Your task to perform on an android device: turn on the 24-hour format for clock Image 0: 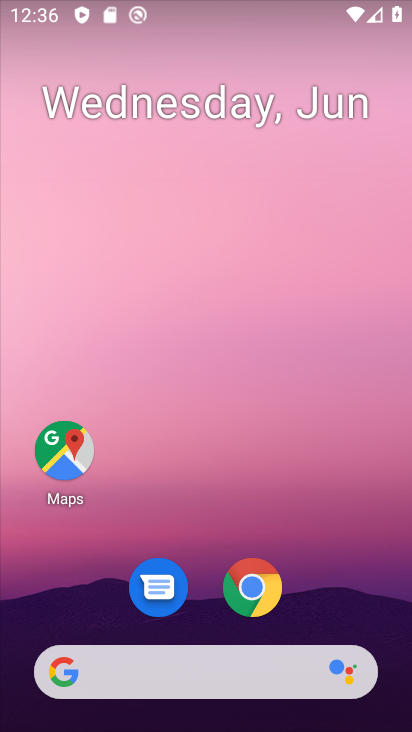
Step 0: drag from (340, 532) to (311, 123)
Your task to perform on an android device: turn on the 24-hour format for clock Image 1: 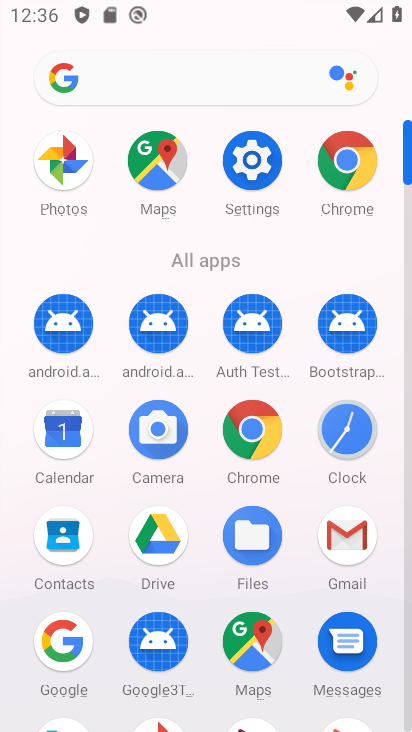
Step 1: click (346, 427)
Your task to perform on an android device: turn on the 24-hour format for clock Image 2: 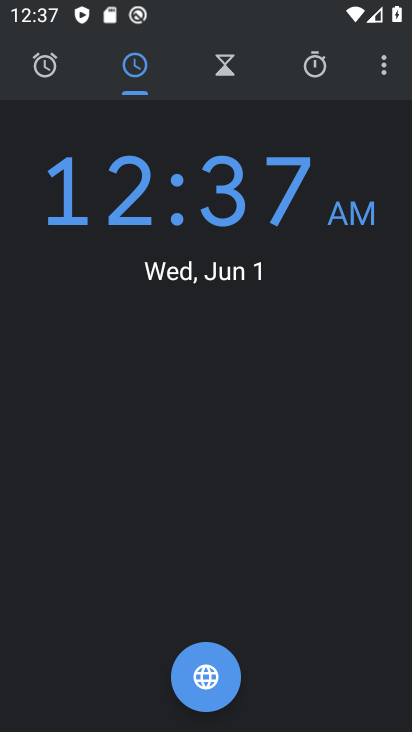
Step 2: click (382, 64)
Your task to perform on an android device: turn on the 24-hour format for clock Image 3: 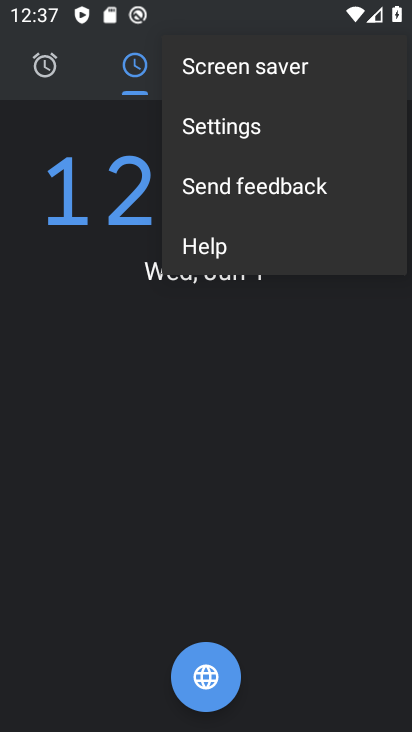
Step 3: click (227, 133)
Your task to perform on an android device: turn on the 24-hour format for clock Image 4: 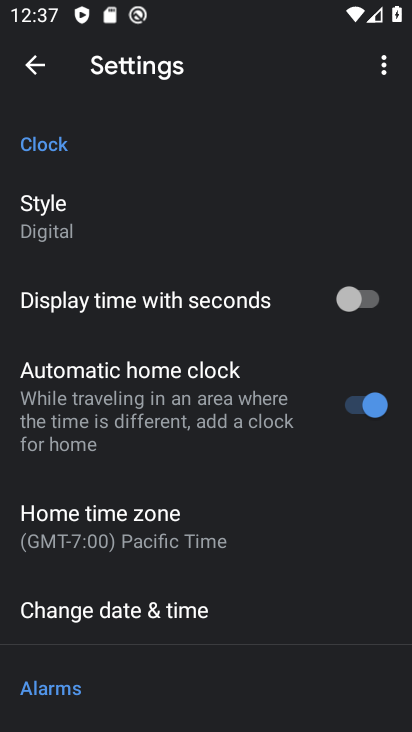
Step 4: drag from (175, 594) to (211, 265)
Your task to perform on an android device: turn on the 24-hour format for clock Image 5: 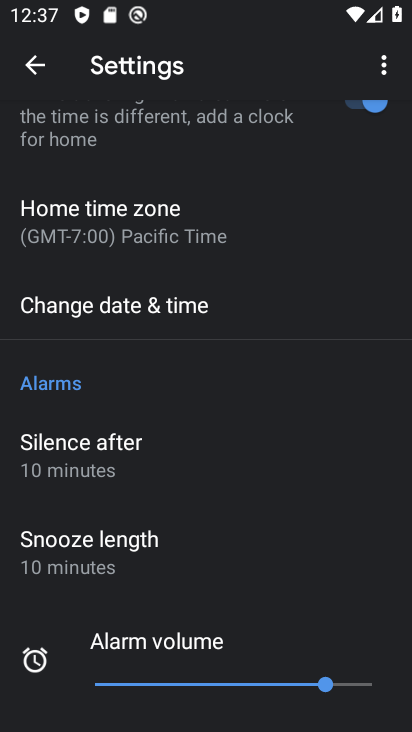
Step 5: click (132, 314)
Your task to perform on an android device: turn on the 24-hour format for clock Image 6: 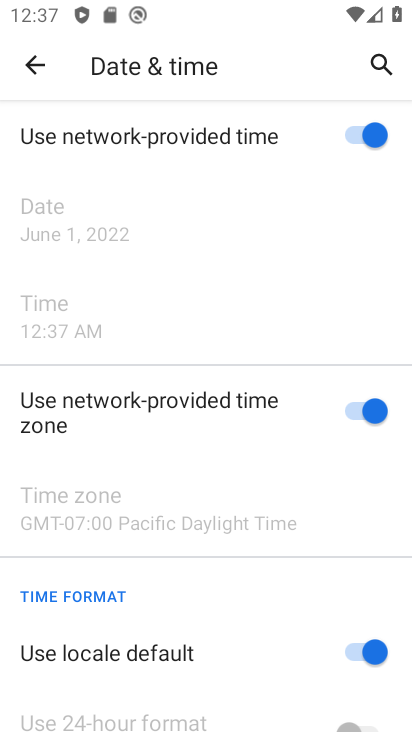
Step 6: drag from (263, 561) to (281, 264)
Your task to perform on an android device: turn on the 24-hour format for clock Image 7: 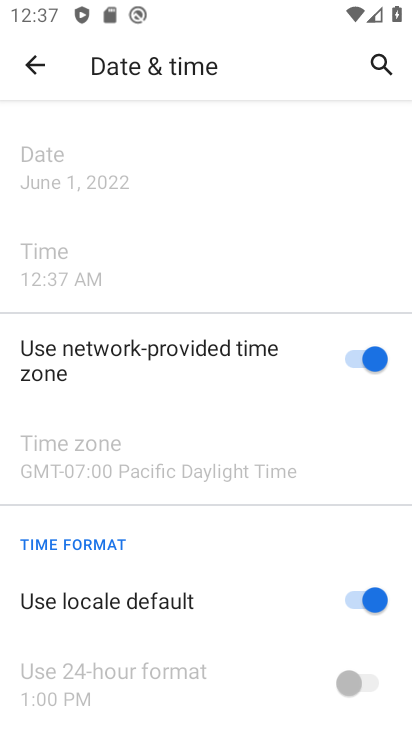
Step 7: click (357, 609)
Your task to perform on an android device: turn on the 24-hour format for clock Image 8: 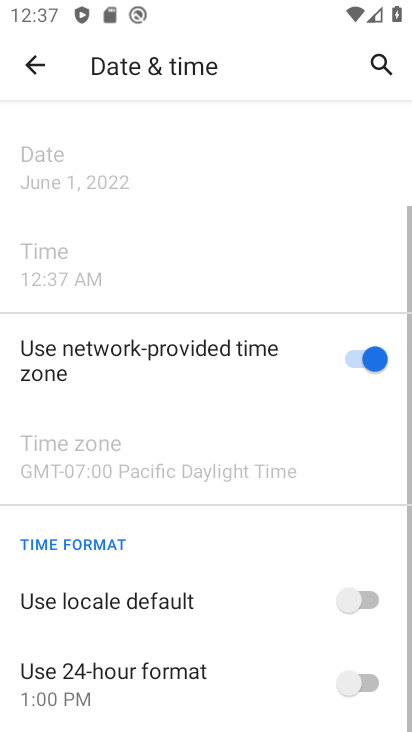
Step 8: click (345, 680)
Your task to perform on an android device: turn on the 24-hour format for clock Image 9: 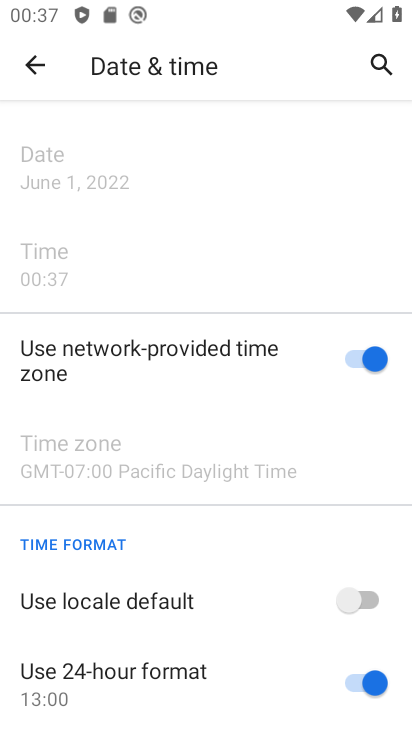
Step 9: task complete